Your task to perform on an android device: What's the weather going to be tomorrow? Image 0: 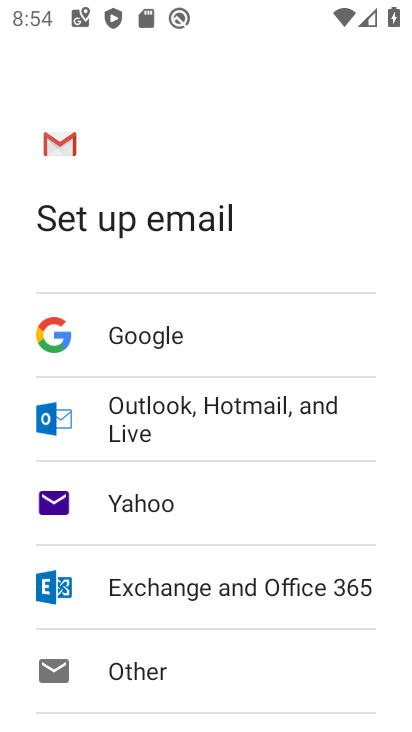
Step 0: press home button
Your task to perform on an android device: What's the weather going to be tomorrow? Image 1: 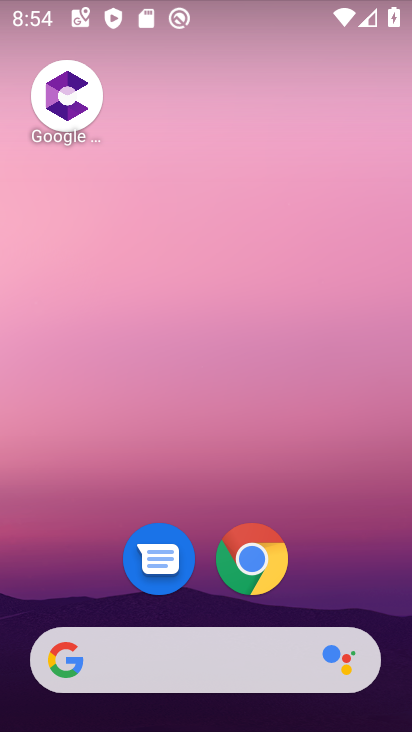
Step 1: click (184, 665)
Your task to perform on an android device: What's the weather going to be tomorrow? Image 2: 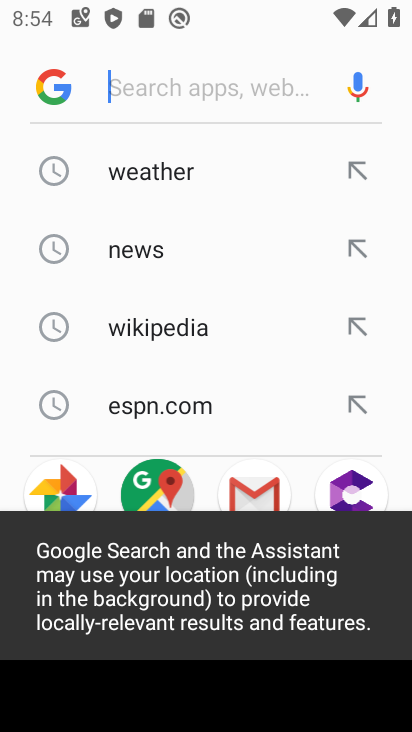
Step 2: click (178, 175)
Your task to perform on an android device: What's the weather going to be tomorrow? Image 3: 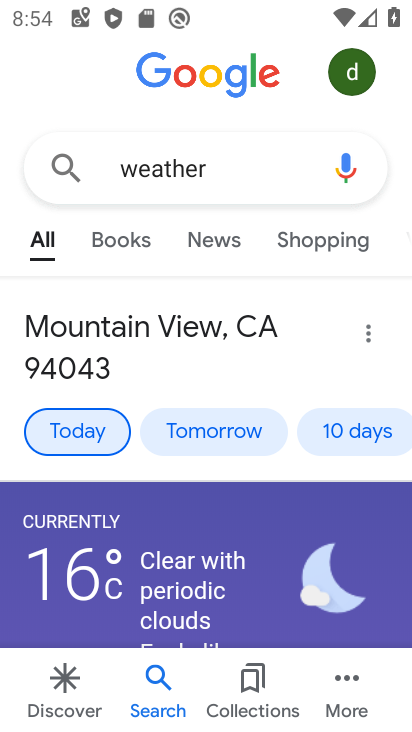
Step 3: click (215, 431)
Your task to perform on an android device: What's the weather going to be tomorrow? Image 4: 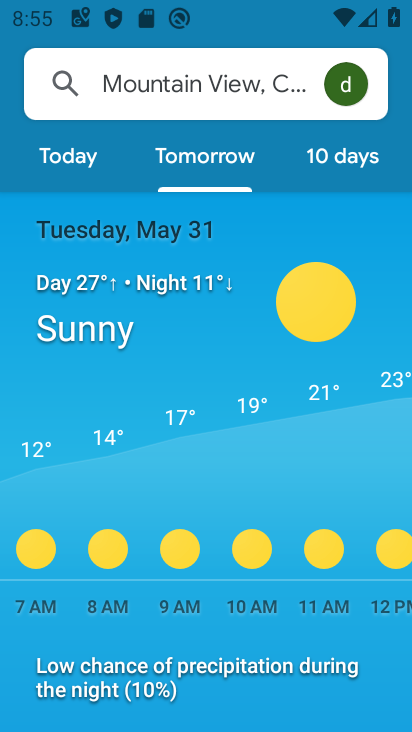
Step 4: task complete